Your task to perform on an android device: Open Chrome and go to the settings page Image 0: 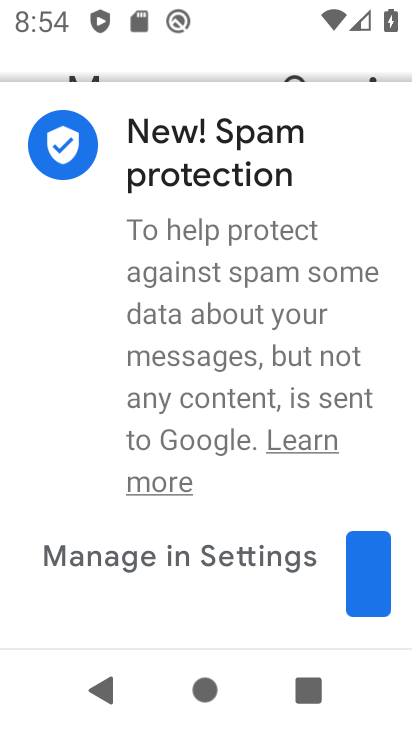
Step 0: press home button
Your task to perform on an android device: Open Chrome and go to the settings page Image 1: 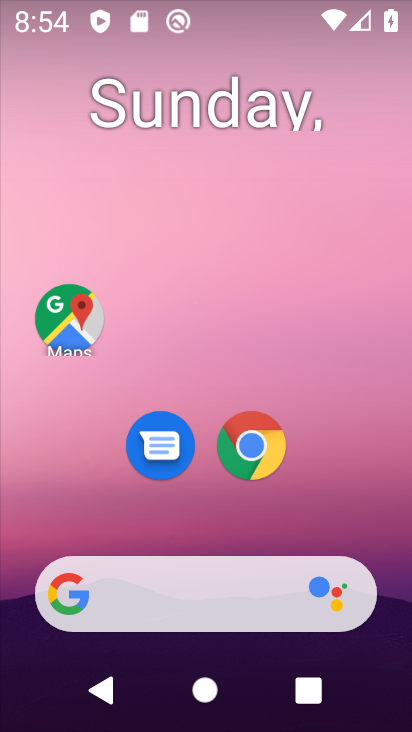
Step 1: click (250, 450)
Your task to perform on an android device: Open Chrome and go to the settings page Image 2: 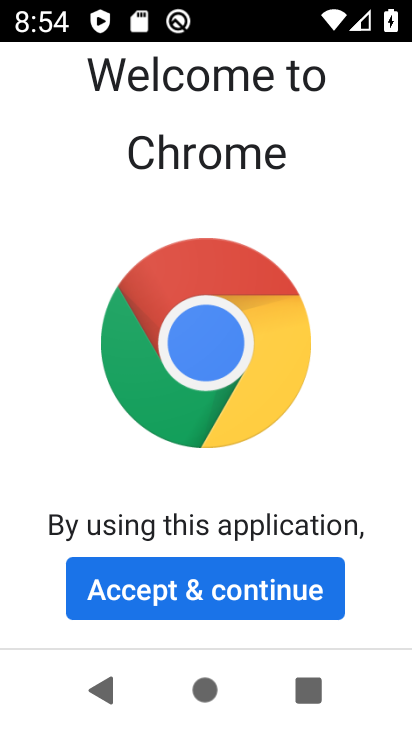
Step 2: click (172, 602)
Your task to perform on an android device: Open Chrome and go to the settings page Image 3: 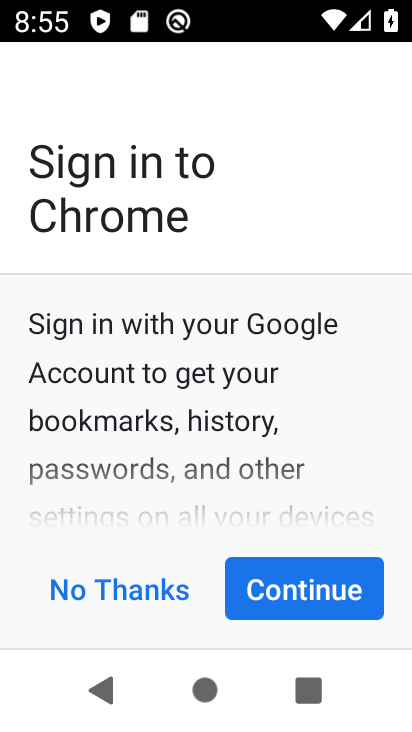
Step 3: click (287, 603)
Your task to perform on an android device: Open Chrome and go to the settings page Image 4: 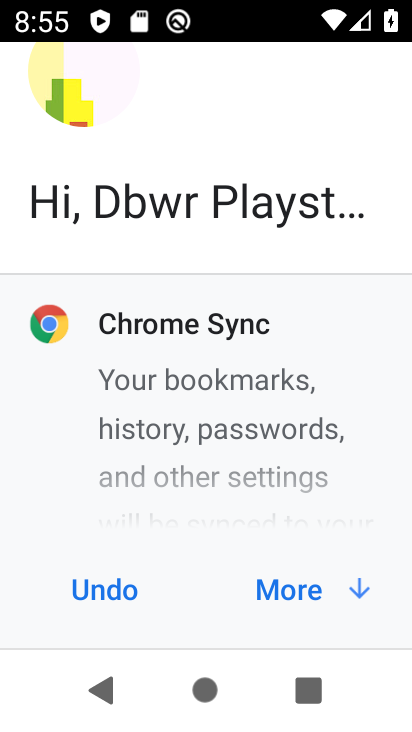
Step 4: click (287, 603)
Your task to perform on an android device: Open Chrome and go to the settings page Image 5: 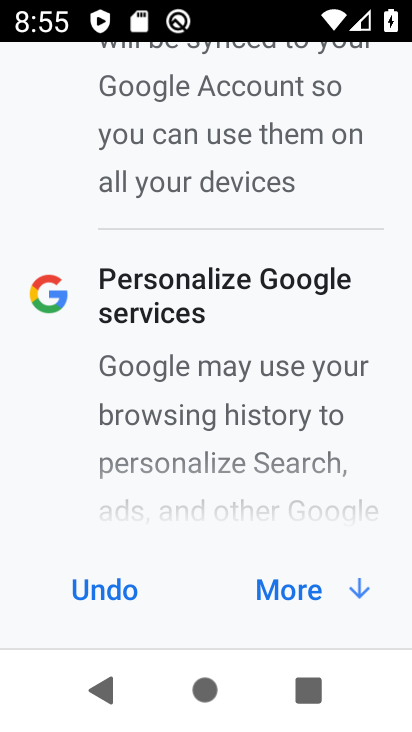
Step 5: click (293, 589)
Your task to perform on an android device: Open Chrome and go to the settings page Image 6: 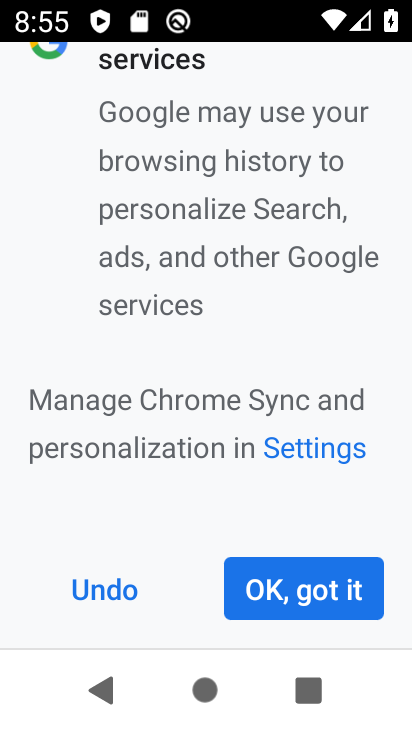
Step 6: click (312, 587)
Your task to perform on an android device: Open Chrome and go to the settings page Image 7: 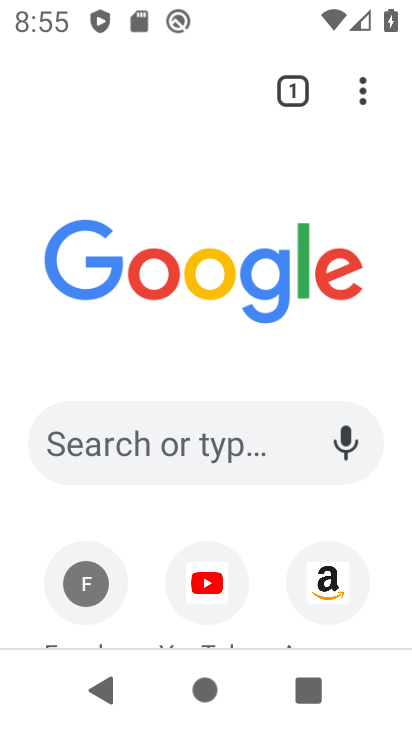
Step 7: click (360, 96)
Your task to perform on an android device: Open Chrome and go to the settings page Image 8: 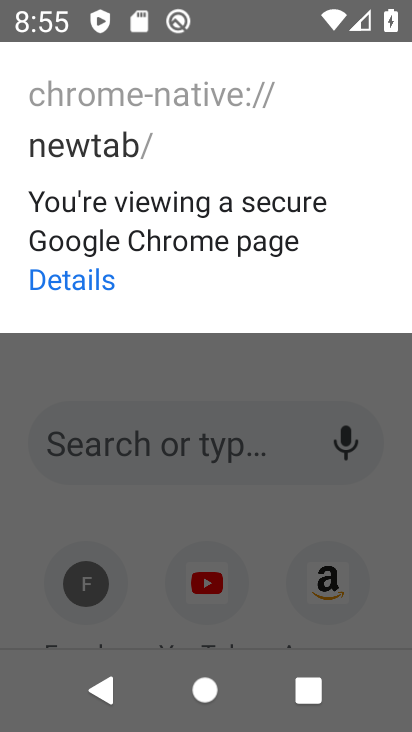
Step 8: click (187, 375)
Your task to perform on an android device: Open Chrome and go to the settings page Image 9: 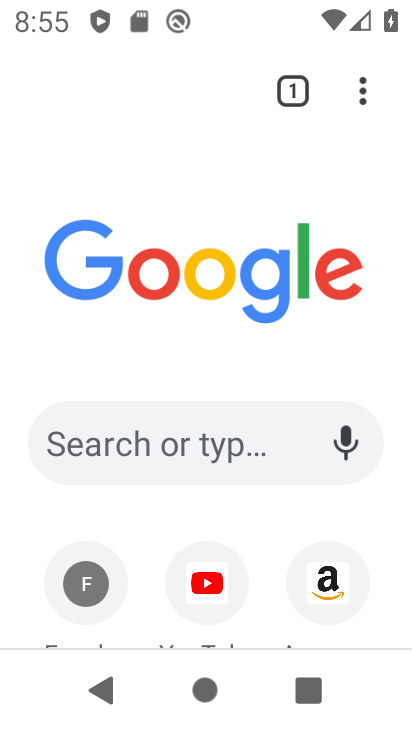
Step 9: click (361, 97)
Your task to perform on an android device: Open Chrome and go to the settings page Image 10: 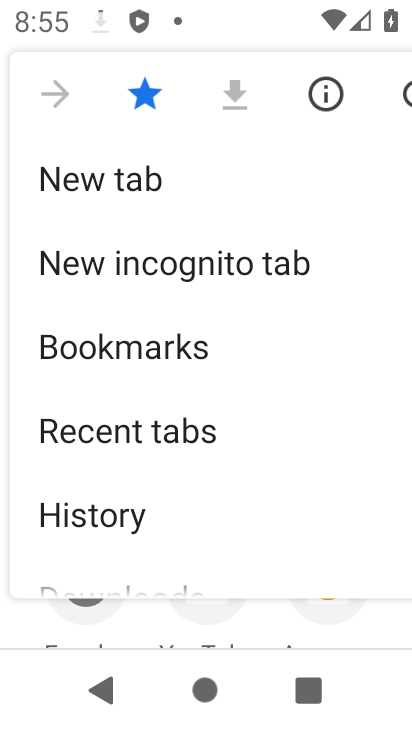
Step 10: drag from (224, 524) to (223, 274)
Your task to perform on an android device: Open Chrome and go to the settings page Image 11: 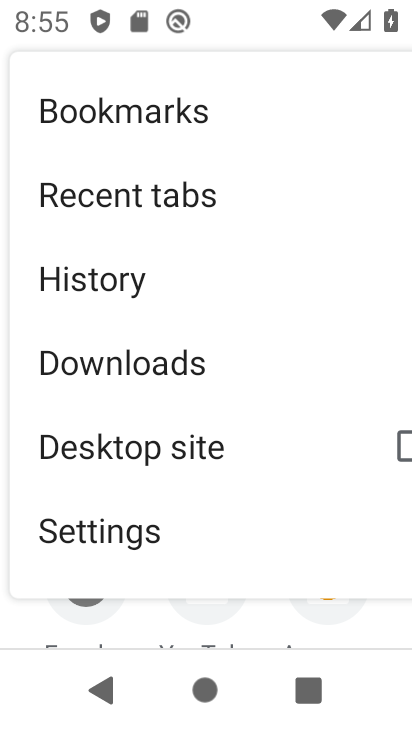
Step 11: click (102, 532)
Your task to perform on an android device: Open Chrome and go to the settings page Image 12: 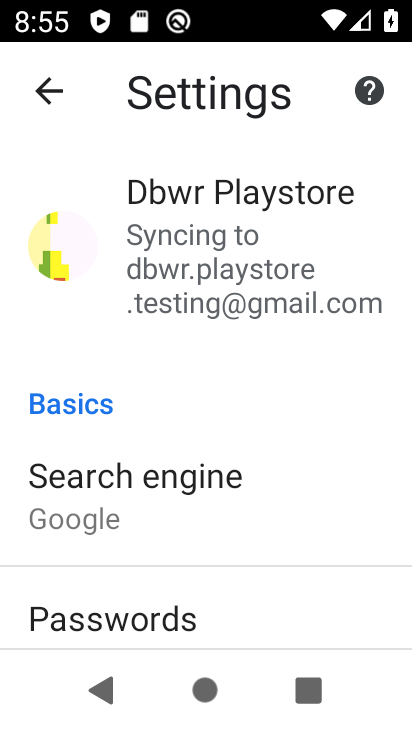
Step 12: task complete